Your task to perform on an android device: turn pop-ups on in chrome Image 0: 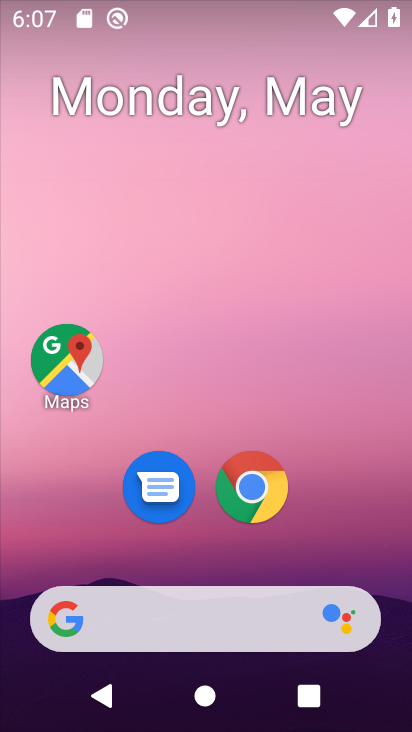
Step 0: click (248, 481)
Your task to perform on an android device: turn pop-ups on in chrome Image 1: 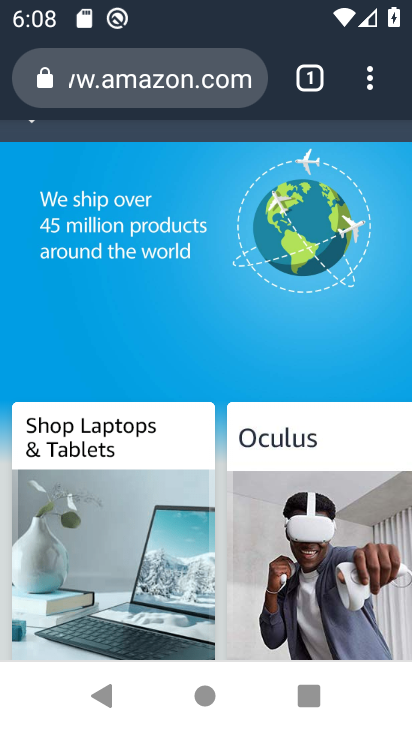
Step 1: click (364, 78)
Your task to perform on an android device: turn pop-ups on in chrome Image 2: 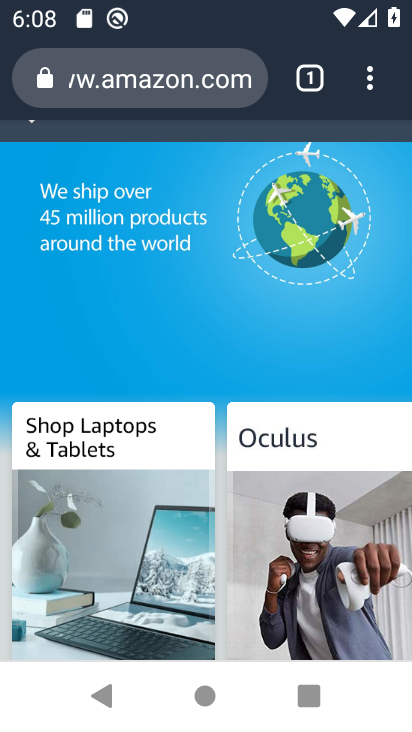
Step 2: click (375, 77)
Your task to perform on an android device: turn pop-ups on in chrome Image 3: 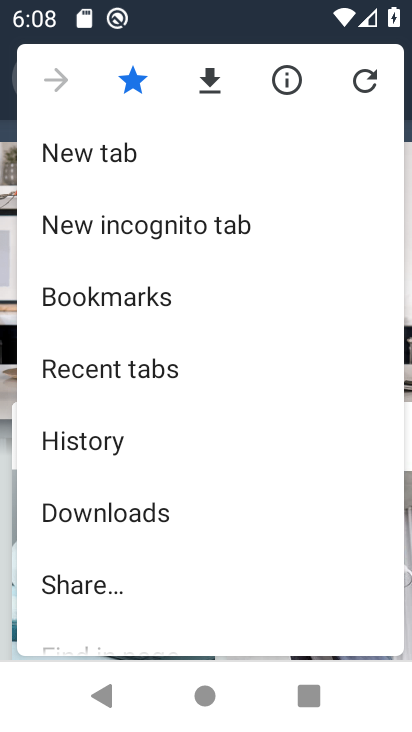
Step 3: drag from (154, 586) to (174, 2)
Your task to perform on an android device: turn pop-ups on in chrome Image 4: 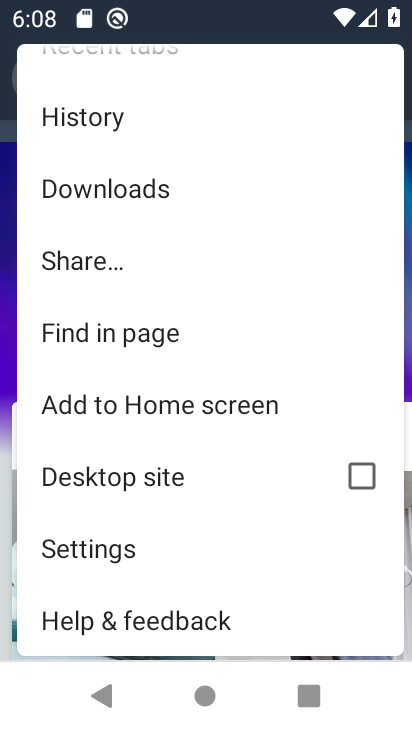
Step 4: click (140, 550)
Your task to perform on an android device: turn pop-ups on in chrome Image 5: 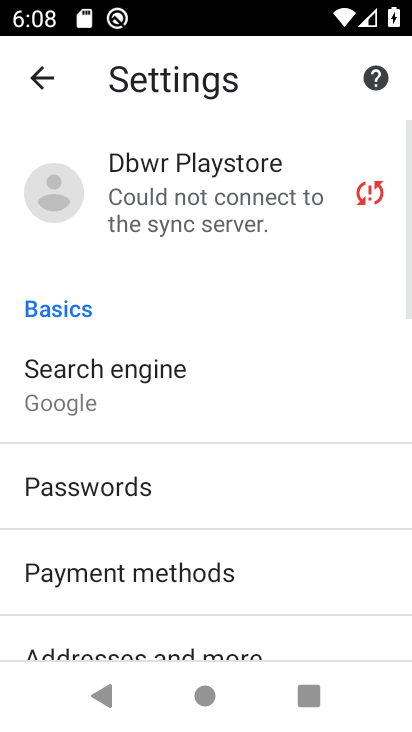
Step 5: drag from (276, 626) to (334, 141)
Your task to perform on an android device: turn pop-ups on in chrome Image 6: 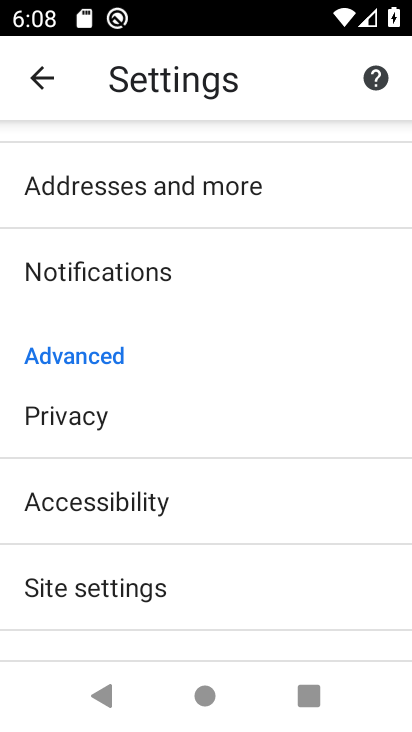
Step 6: click (208, 582)
Your task to perform on an android device: turn pop-ups on in chrome Image 7: 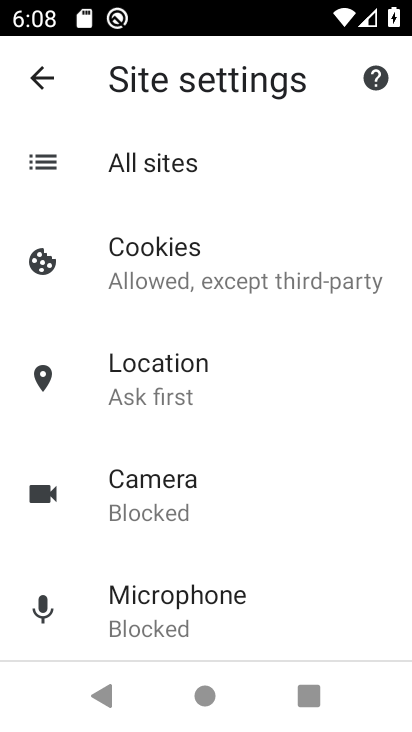
Step 7: drag from (256, 598) to (296, 119)
Your task to perform on an android device: turn pop-ups on in chrome Image 8: 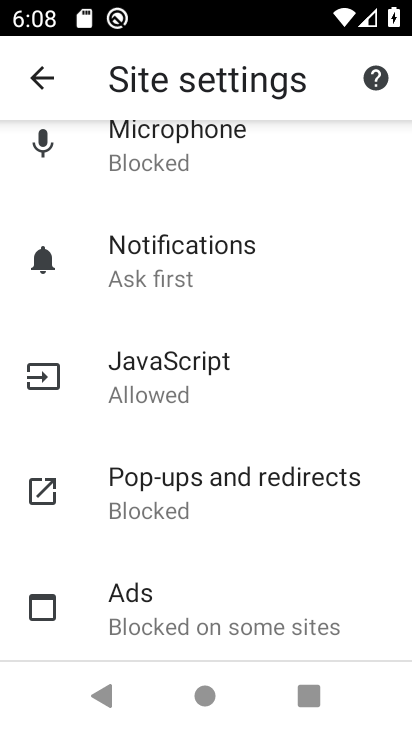
Step 8: click (233, 500)
Your task to perform on an android device: turn pop-ups on in chrome Image 9: 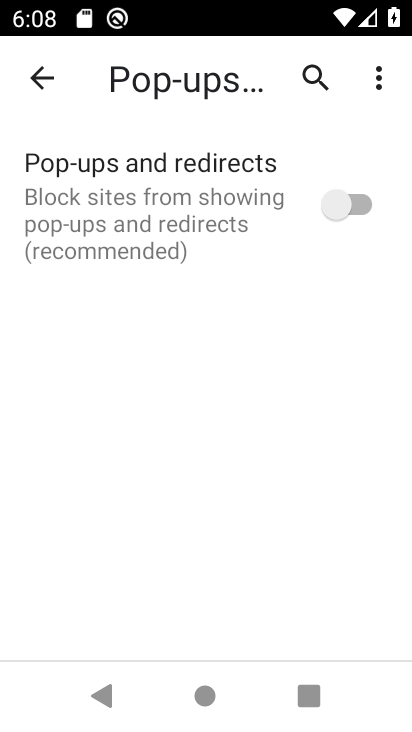
Step 9: click (356, 203)
Your task to perform on an android device: turn pop-ups on in chrome Image 10: 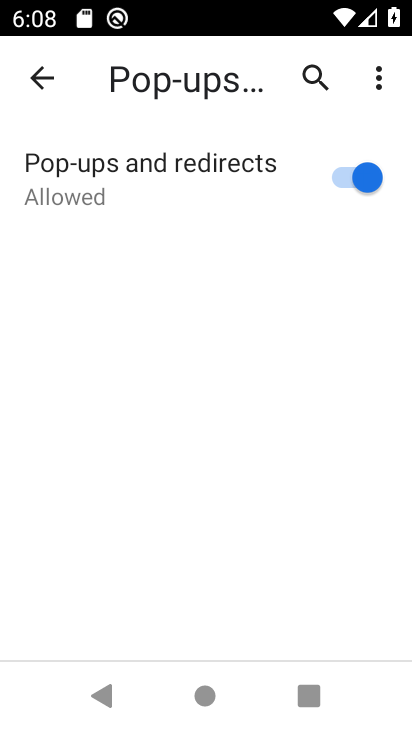
Step 10: task complete